Your task to perform on an android device: turn on the 24-hour format for clock Image 0: 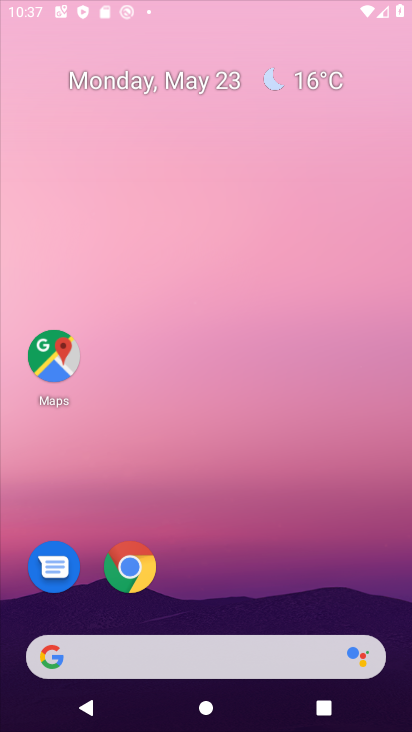
Step 0: click (263, 77)
Your task to perform on an android device: turn on the 24-hour format for clock Image 1: 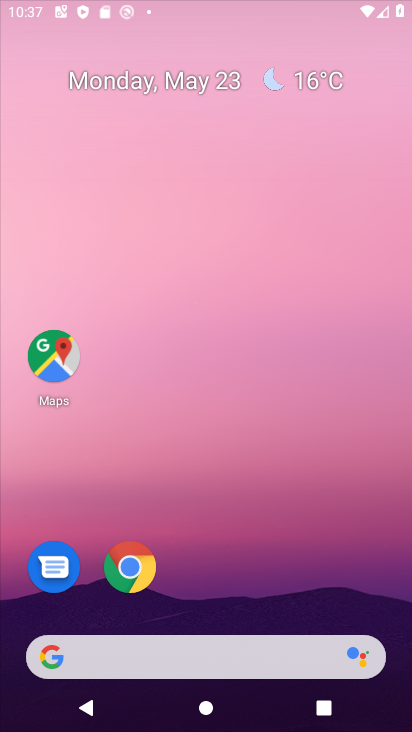
Step 1: drag from (197, 598) to (206, 91)
Your task to perform on an android device: turn on the 24-hour format for clock Image 2: 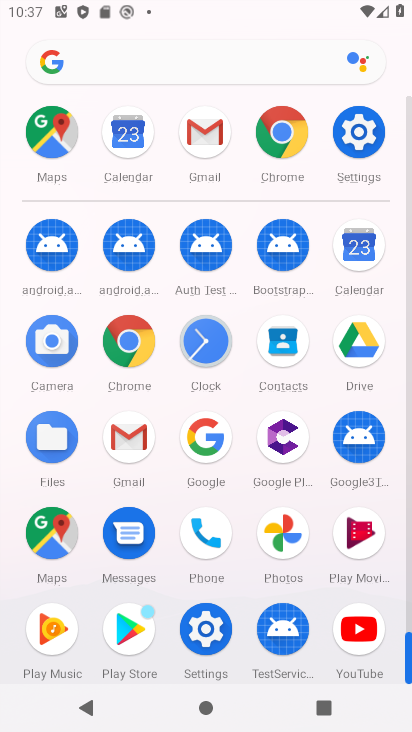
Step 2: click (201, 334)
Your task to perform on an android device: turn on the 24-hour format for clock Image 3: 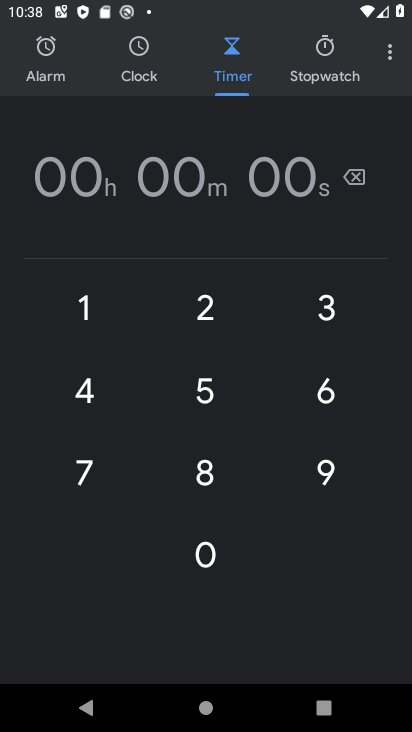
Step 3: click (127, 55)
Your task to perform on an android device: turn on the 24-hour format for clock Image 4: 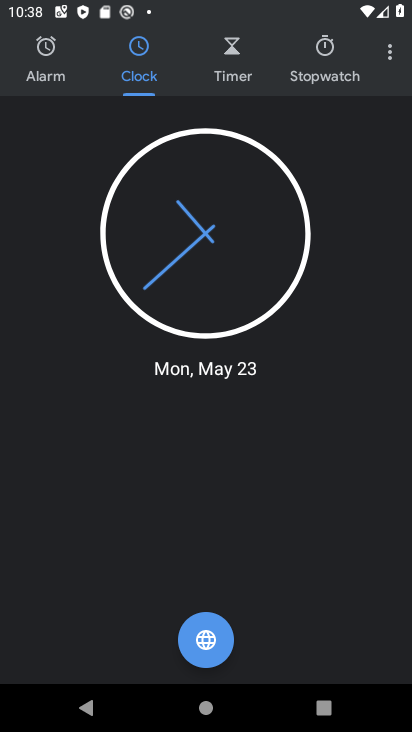
Step 4: click (67, 55)
Your task to perform on an android device: turn on the 24-hour format for clock Image 5: 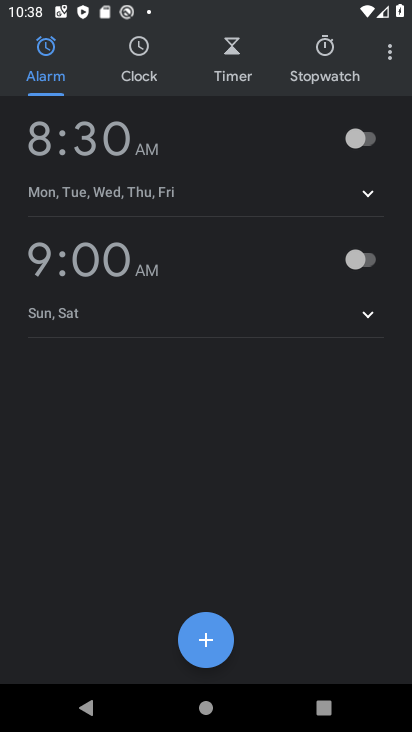
Step 5: click (376, 60)
Your task to perform on an android device: turn on the 24-hour format for clock Image 6: 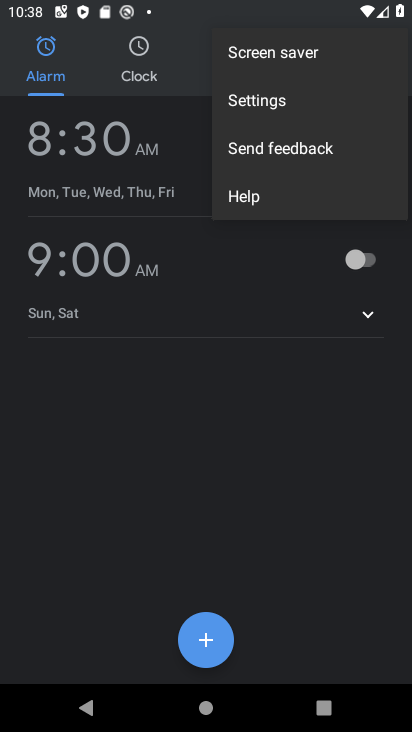
Step 6: click (270, 103)
Your task to perform on an android device: turn on the 24-hour format for clock Image 7: 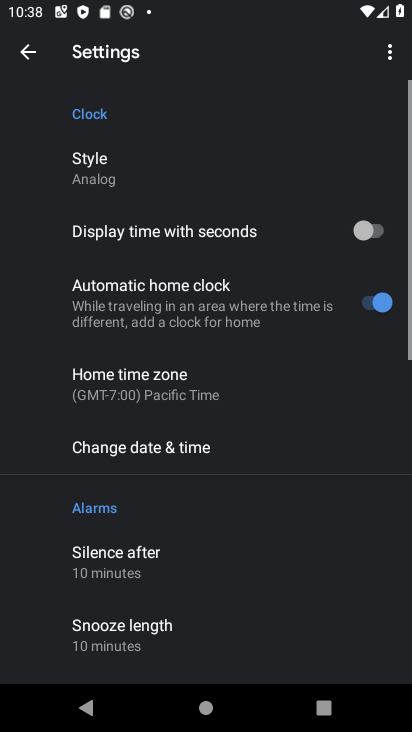
Step 7: drag from (221, 503) to (293, 20)
Your task to perform on an android device: turn on the 24-hour format for clock Image 8: 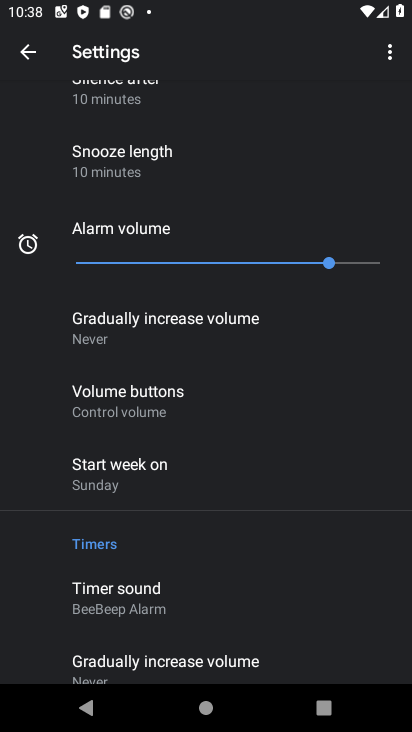
Step 8: drag from (230, 172) to (270, 686)
Your task to perform on an android device: turn on the 24-hour format for clock Image 9: 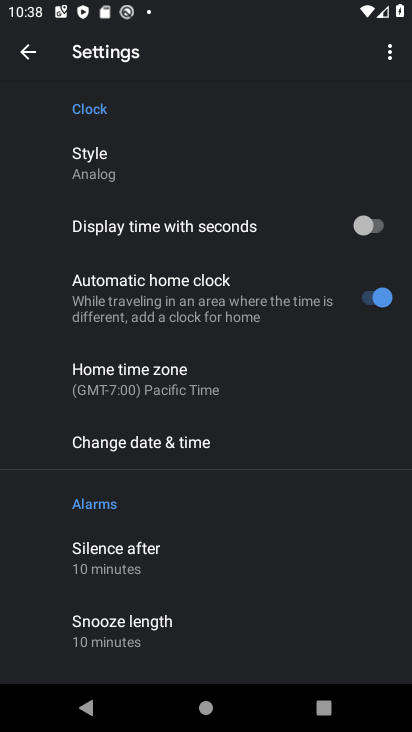
Step 9: click (198, 434)
Your task to perform on an android device: turn on the 24-hour format for clock Image 10: 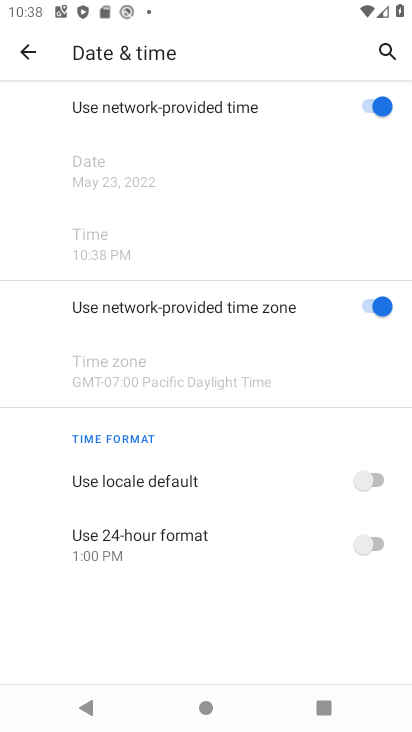
Step 10: click (249, 542)
Your task to perform on an android device: turn on the 24-hour format for clock Image 11: 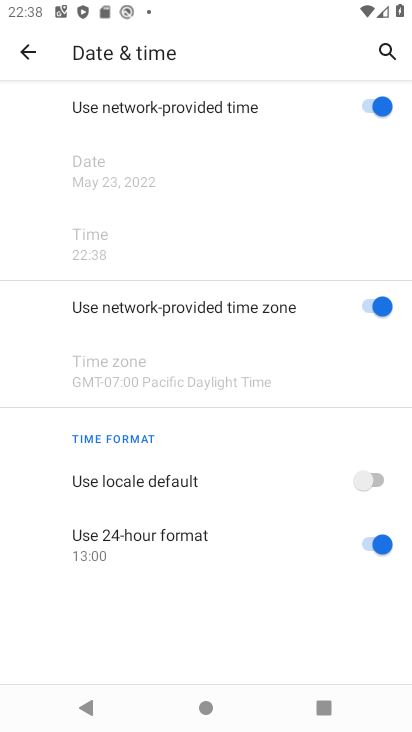
Step 11: task complete